Your task to perform on an android device: turn on priority inbox in the gmail app Image 0: 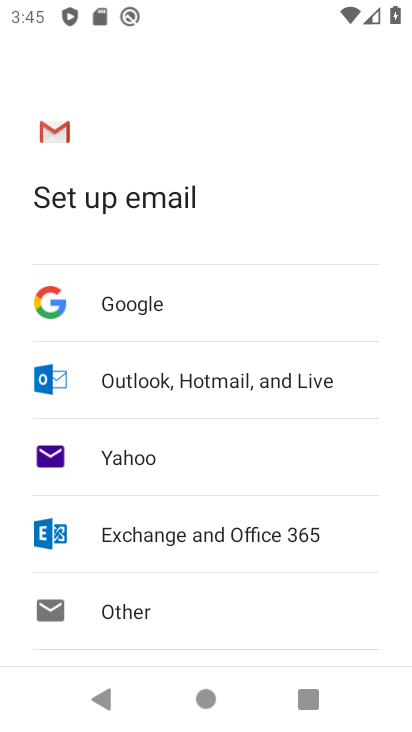
Step 0: press home button
Your task to perform on an android device: turn on priority inbox in the gmail app Image 1: 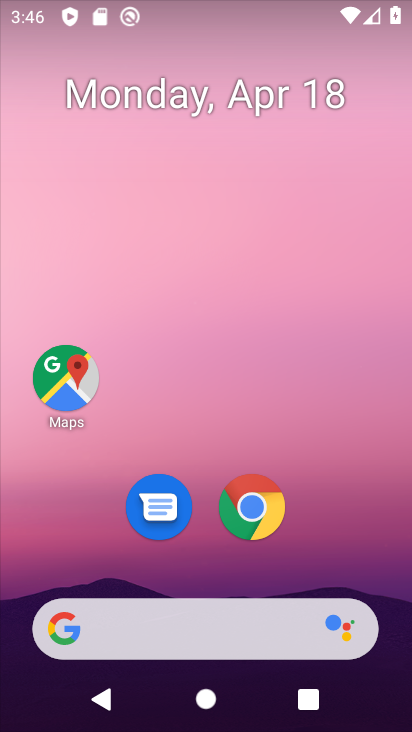
Step 1: drag from (246, 645) to (185, 6)
Your task to perform on an android device: turn on priority inbox in the gmail app Image 2: 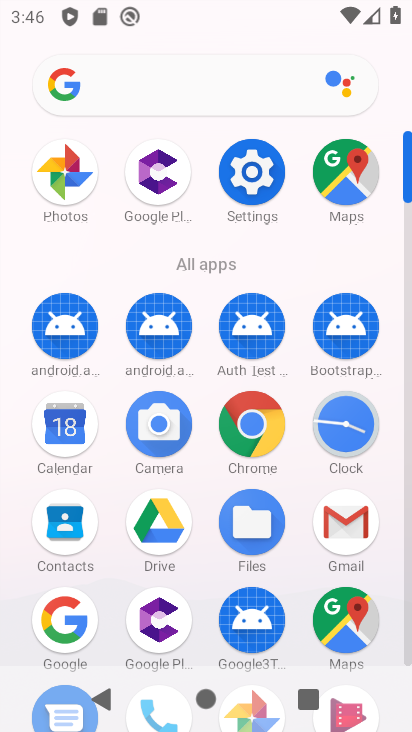
Step 2: click (336, 540)
Your task to perform on an android device: turn on priority inbox in the gmail app Image 3: 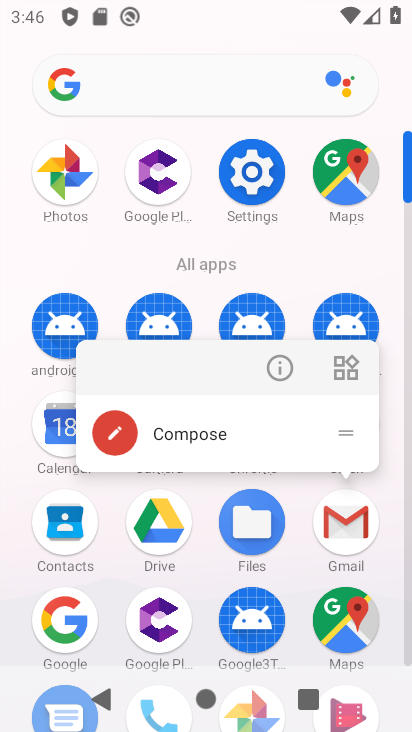
Step 3: click (359, 514)
Your task to perform on an android device: turn on priority inbox in the gmail app Image 4: 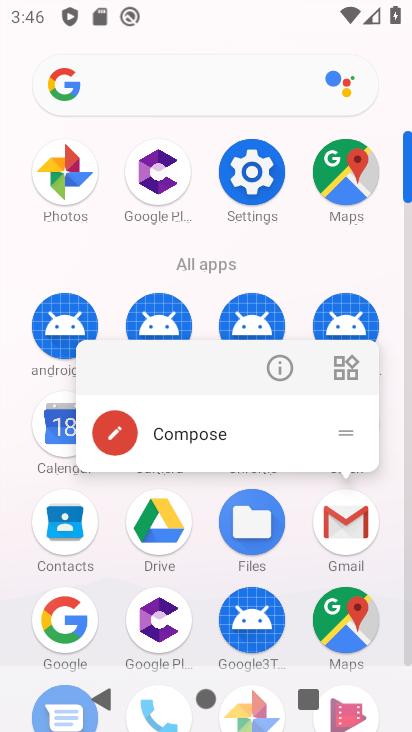
Step 4: click (359, 514)
Your task to perform on an android device: turn on priority inbox in the gmail app Image 5: 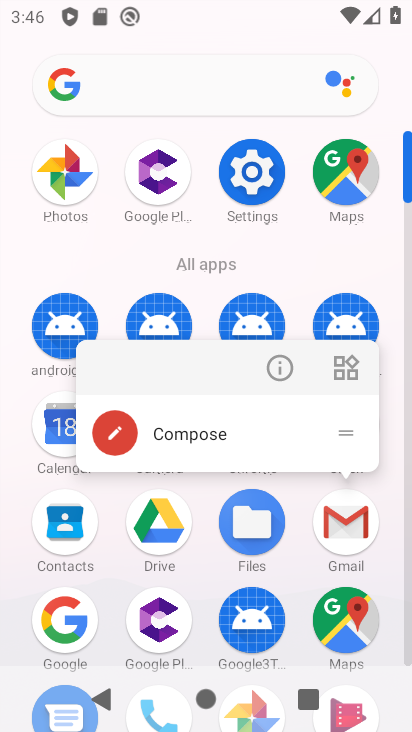
Step 5: click (359, 514)
Your task to perform on an android device: turn on priority inbox in the gmail app Image 6: 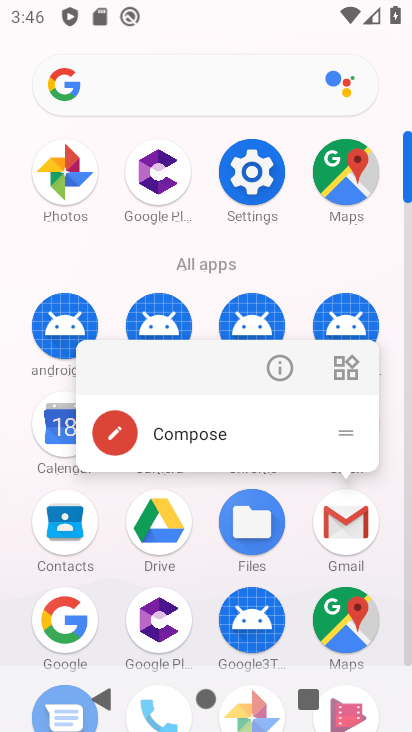
Step 6: click (359, 514)
Your task to perform on an android device: turn on priority inbox in the gmail app Image 7: 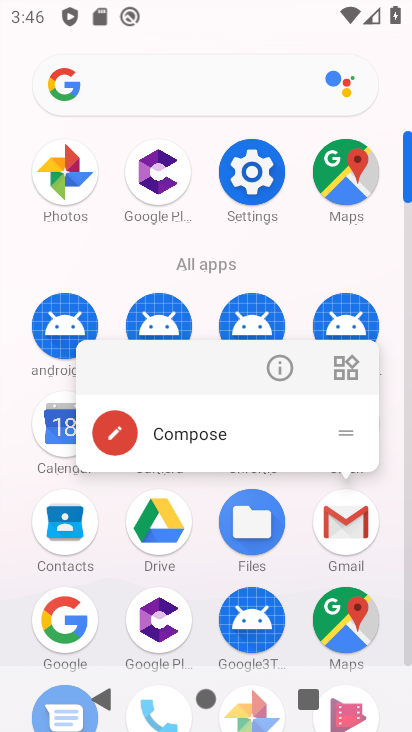
Step 7: click (359, 514)
Your task to perform on an android device: turn on priority inbox in the gmail app Image 8: 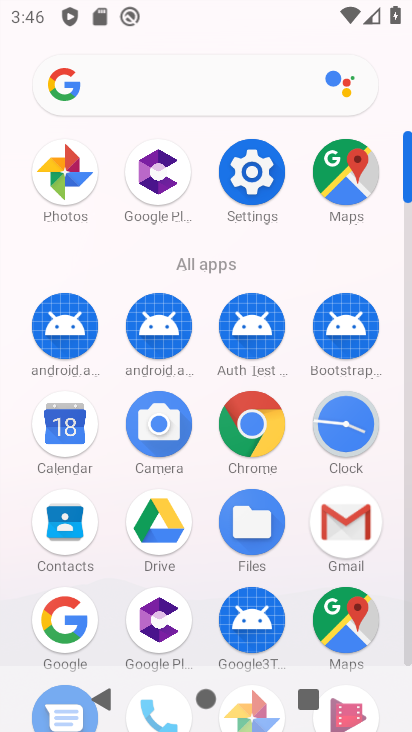
Step 8: click (359, 514)
Your task to perform on an android device: turn on priority inbox in the gmail app Image 9: 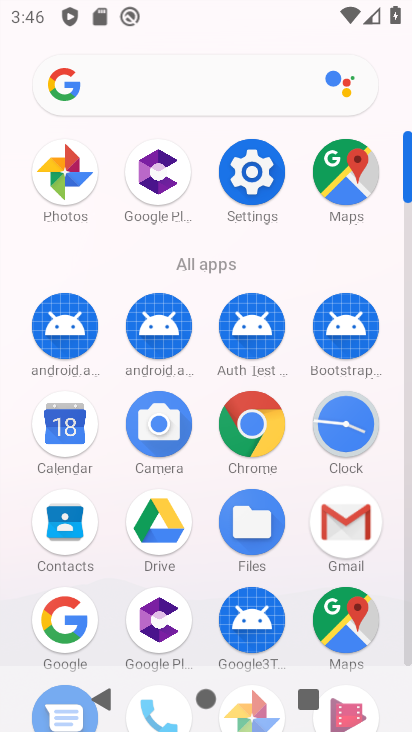
Step 9: click (359, 514)
Your task to perform on an android device: turn on priority inbox in the gmail app Image 10: 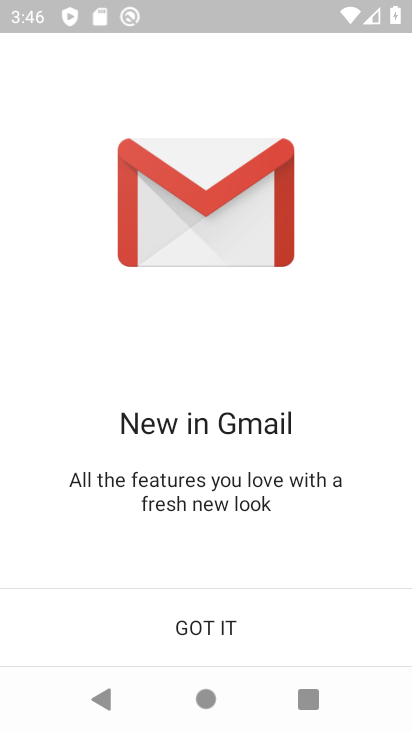
Step 10: click (203, 615)
Your task to perform on an android device: turn on priority inbox in the gmail app Image 11: 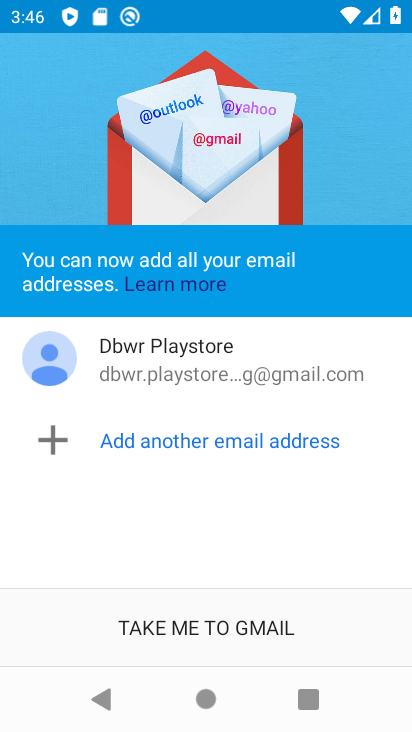
Step 11: click (204, 632)
Your task to perform on an android device: turn on priority inbox in the gmail app Image 12: 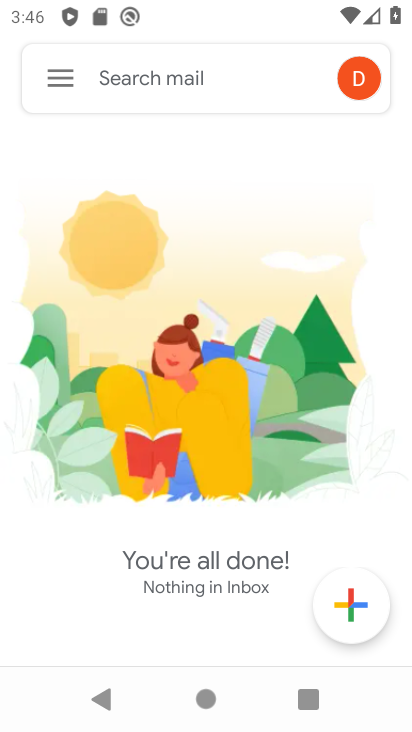
Step 12: click (55, 87)
Your task to perform on an android device: turn on priority inbox in the gmail app Image 13: 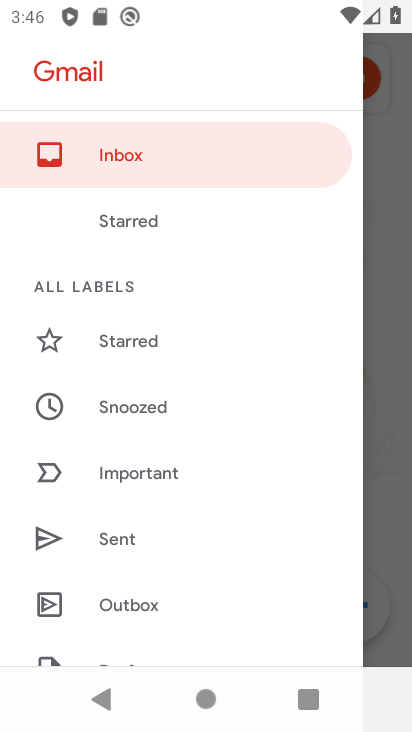
Step 13: drag from (196, 637) to (256, 35)
Your task to perform on an android device: turn on priority inbox in the gmail app Image 14: 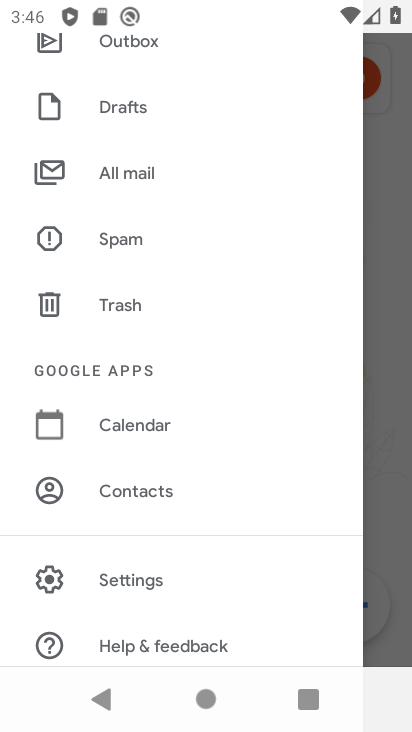
Step 14: click (215, 594)
Your task to perform on an android device: turn on priority inbox in the gmail app Image 15: 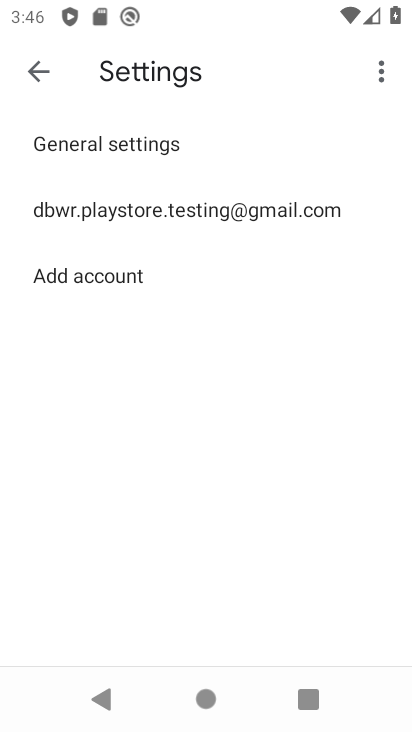
Step 15: click (266, 213)
Your task to perform on an android device: turn on priority inbox in the gmail app Image 16: 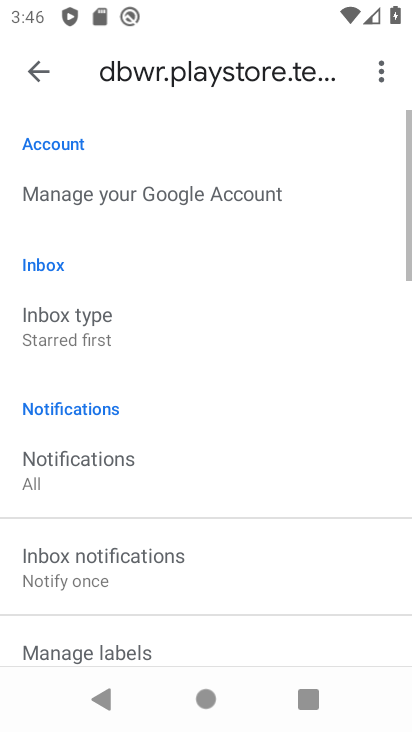
Step 16: click (73, 343)
Your task to perform on an android device: turn on priority inbox in the gmail app Image 17: 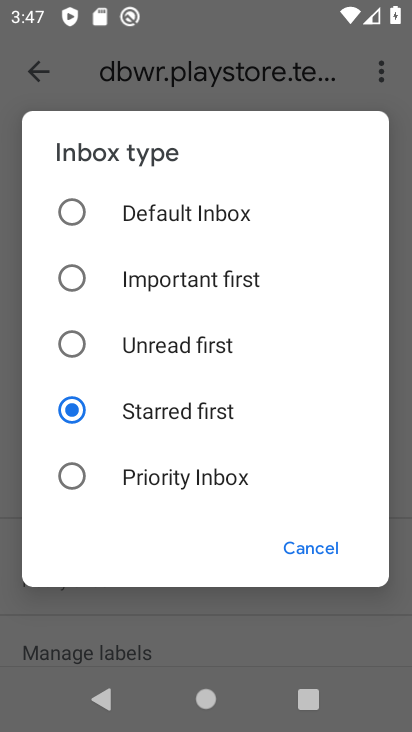
Step 17: click (80, 472)
Your task to perform on an android device: turn on priority inbox in the gmail app Image 18: 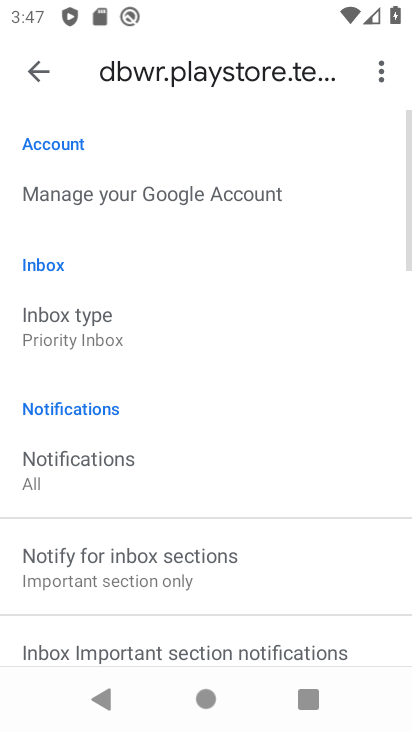
Step 18: task complete